Your task to perform on an android device: Is it going to rain tomorrow? Image 0: 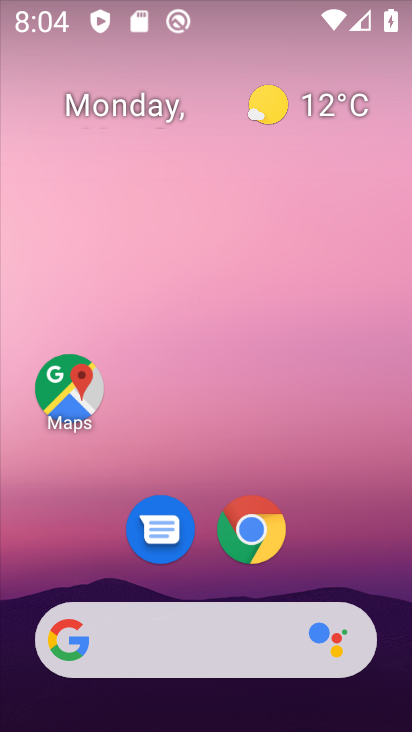
Step 0: drag from (219, 636) to (186, 3)
Your task to perform on an android device: Is it going to rain tomorrow? Image 1: 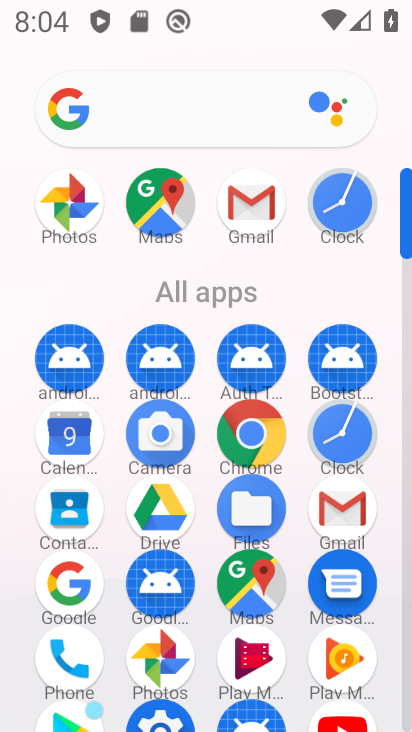
Step 1: press home button
Your task to perform on an android device: Is it going to rain tomorrow? Image 2: 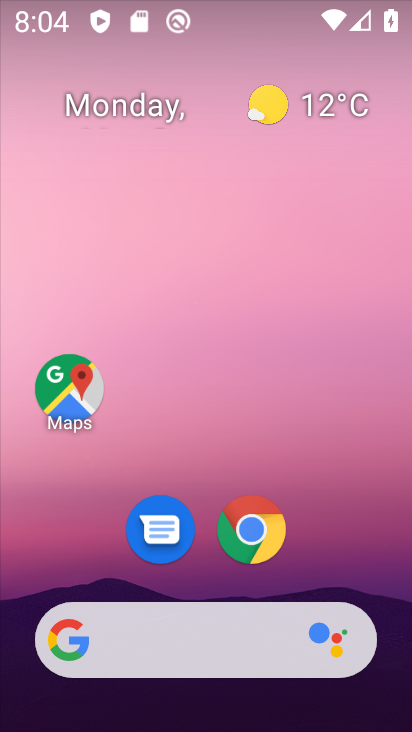
Step 2: click (308, 116)
Your task to perform on an android device: Is it going to rain tomorrow? Image 3: 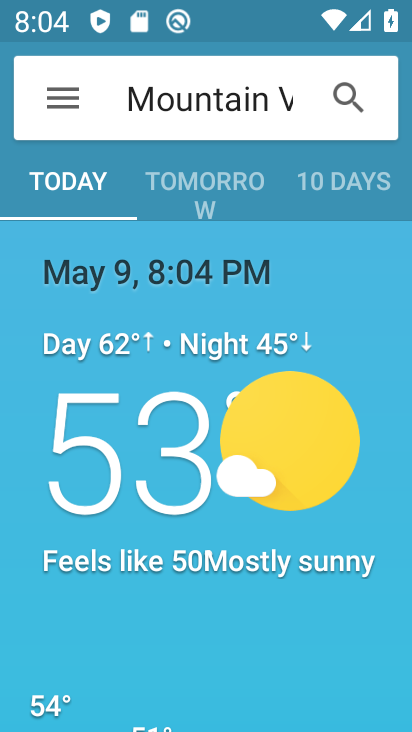
Step 3: click (203, 177)
Your task to perform on an android device: Is it going to rain tomorrow? Image 4: 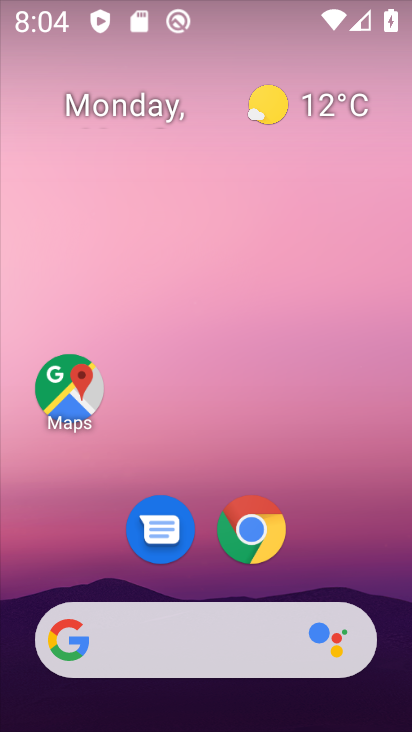
Step 4: click (318, 120)
Your task to perform on an android device: Is it going to rain tomorrow? Image 5: 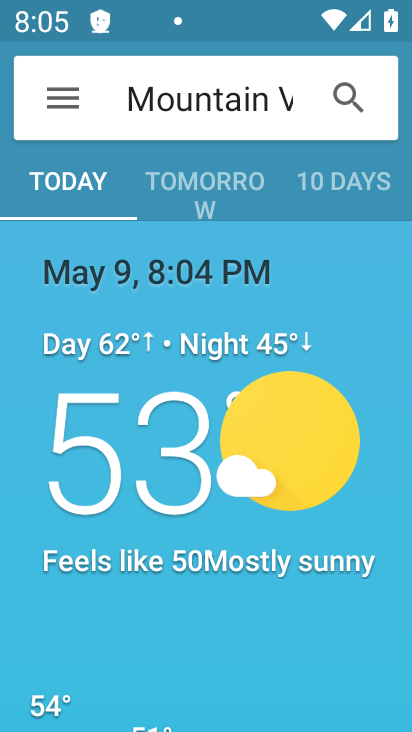
Step 5: click (200, 206)
Your task to perform on an android device: Is it going to rain tomorrow? Image 6: 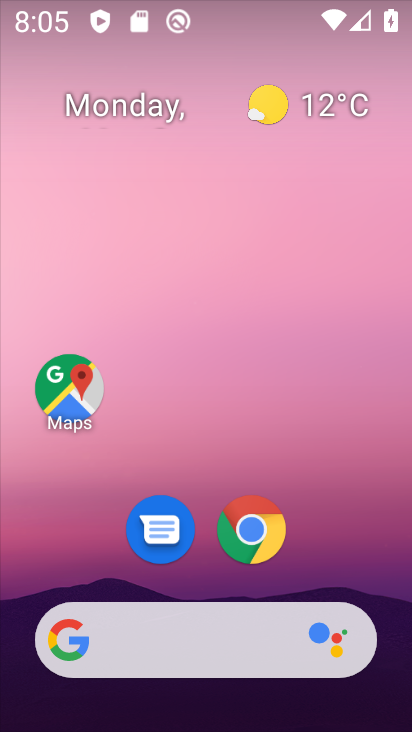
Step 6: task complete